Your task to perform on an android device: View the shopping cart on target. Search for rayovac triple a on target, select the first entry, add it to the cart, then select checkout. Image 0: 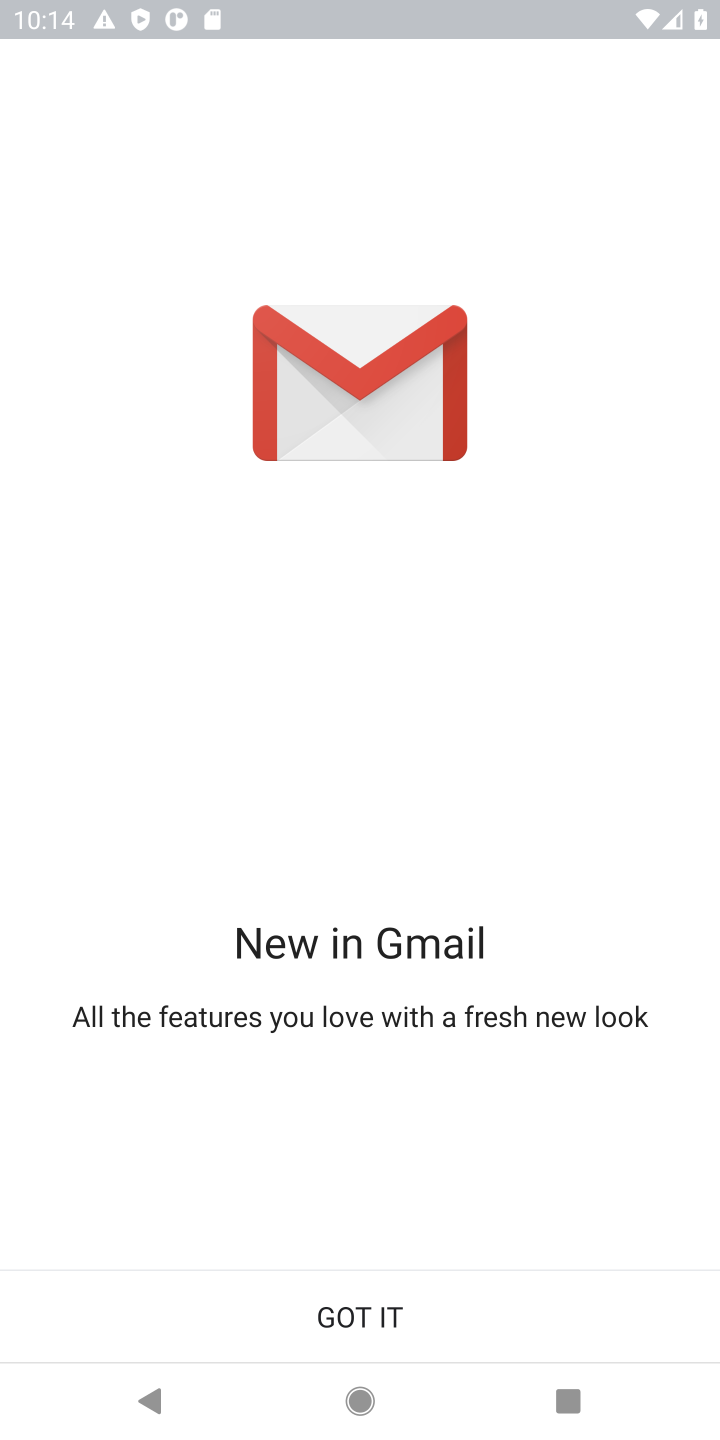
Step 0: press home button
Your task to perform on an android device: View the shopping cart on target. Search for rayovac triple a on target, select the first entry, add it to the cart, then select checkout. Image 1: 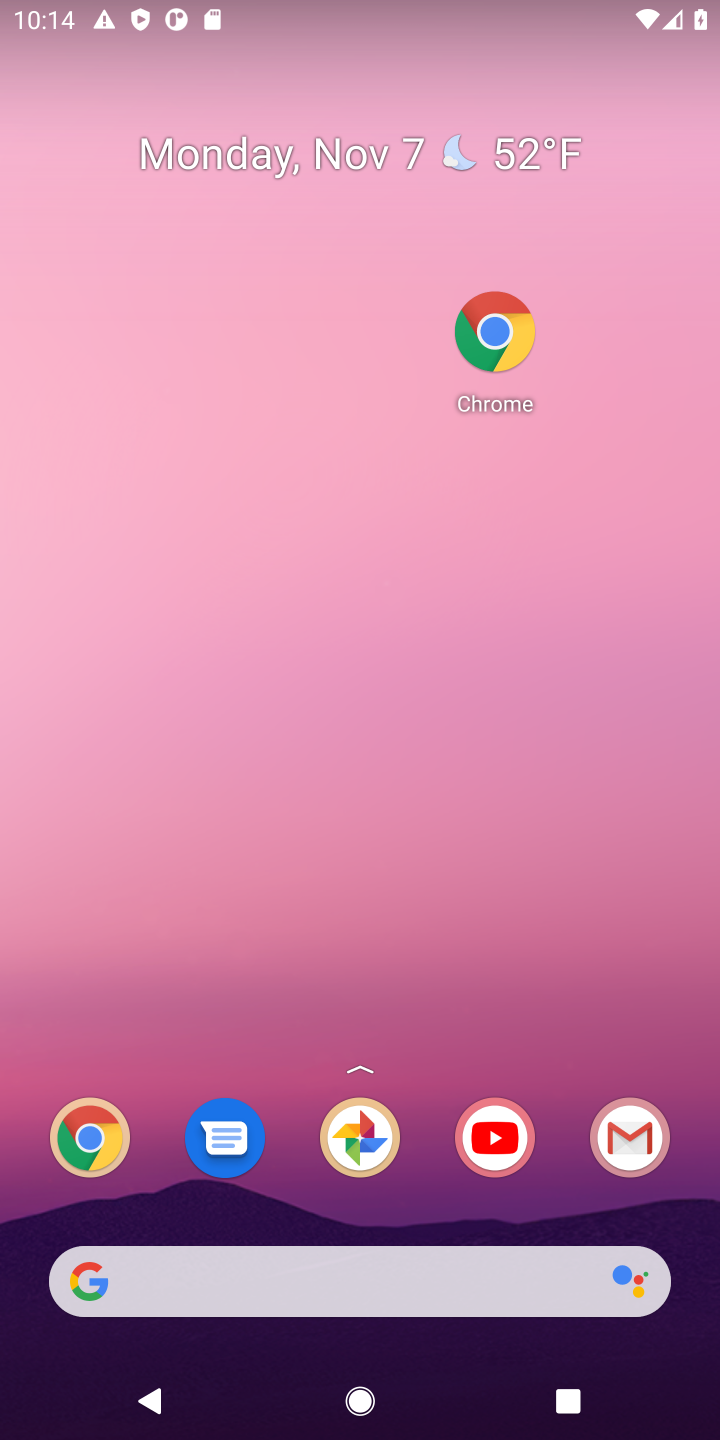
Step 1: drag from (421, 1234) to (296, 135)
Your task to perform on an android device: View the shopping cart on target. Search for rayovac triple a on target, select the first entry, add it to the cart, then select checkout. Image 2: 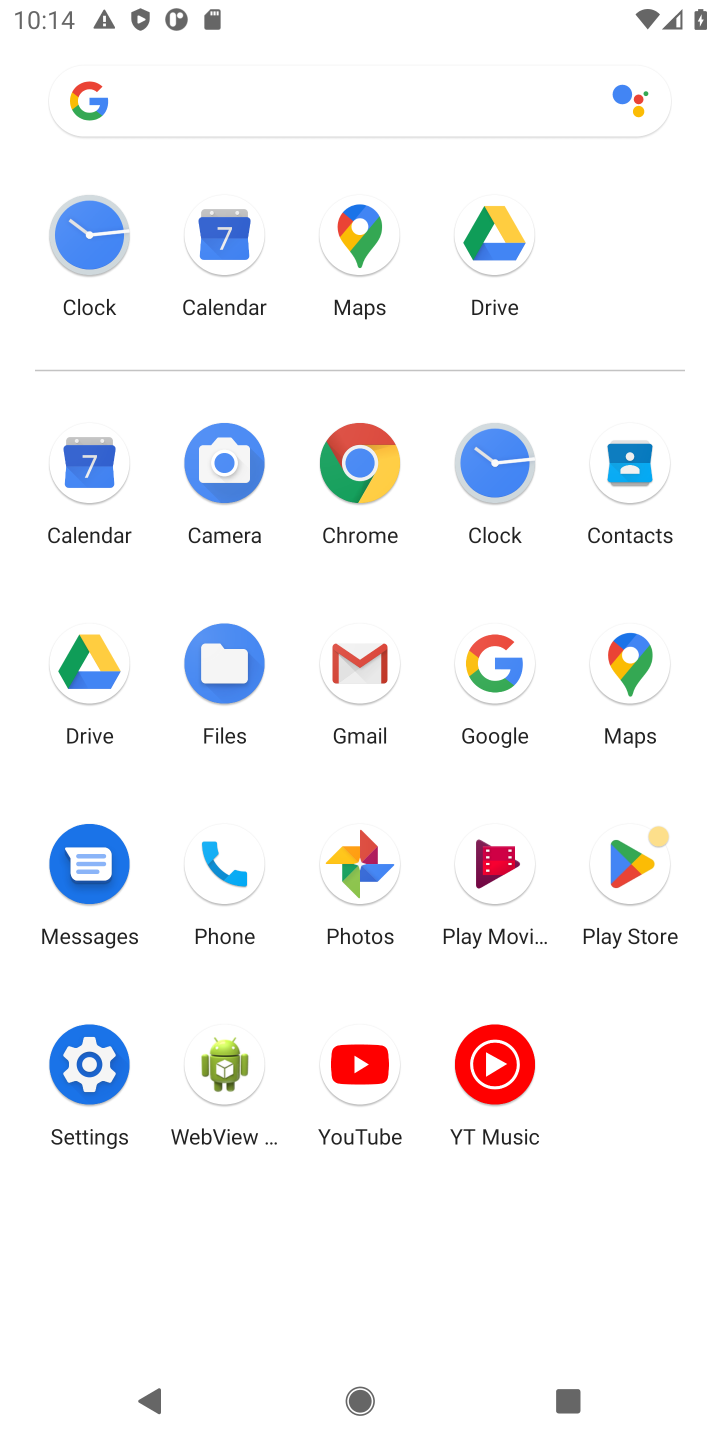
Step 2: click (359, 460)
Your task to perform on an android device: View the shopping cart on target. Search for rayovac triple a on target, select the first entry, add it to the cart, then select checkout. Image 3: 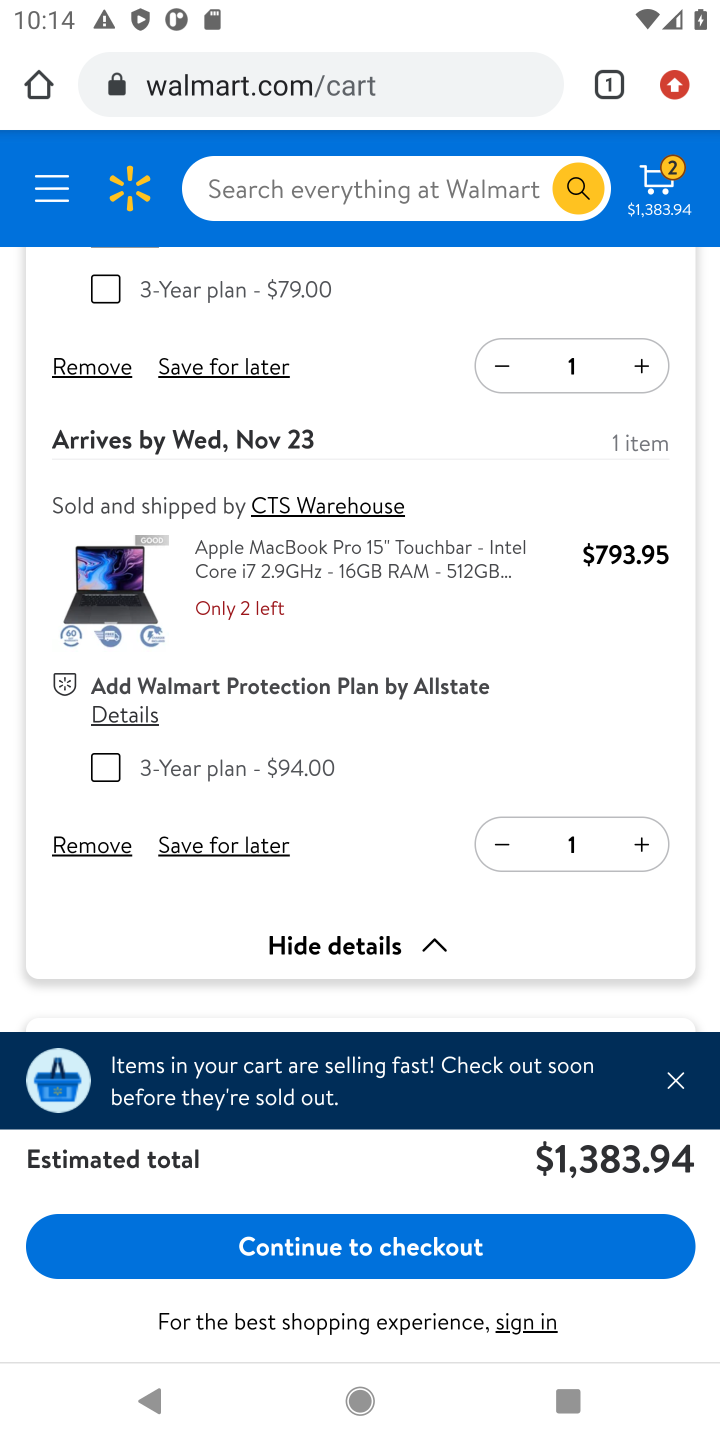
Step 3: click (390, 85)
Your task to perform on an android device: View the shopping cart on target. Search for rayovac triple a on target, select the first entry, add it to the cart, then select checkout. Image 4: 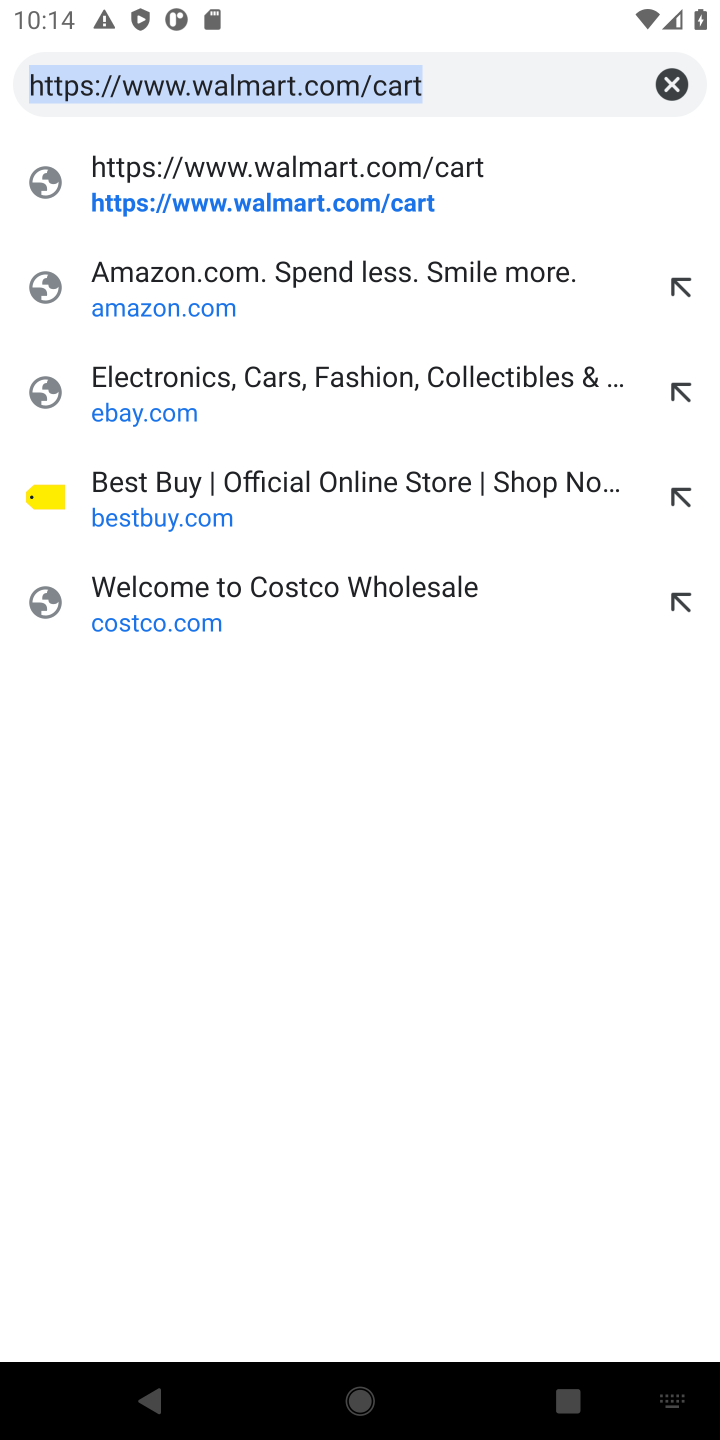
Step 4: type "target.com"
Your task to perform on an android device: View the shopping cart on target. Search for rayovac triple a on target, select the first entry, add it to the cart, then select checkout. Image 5: 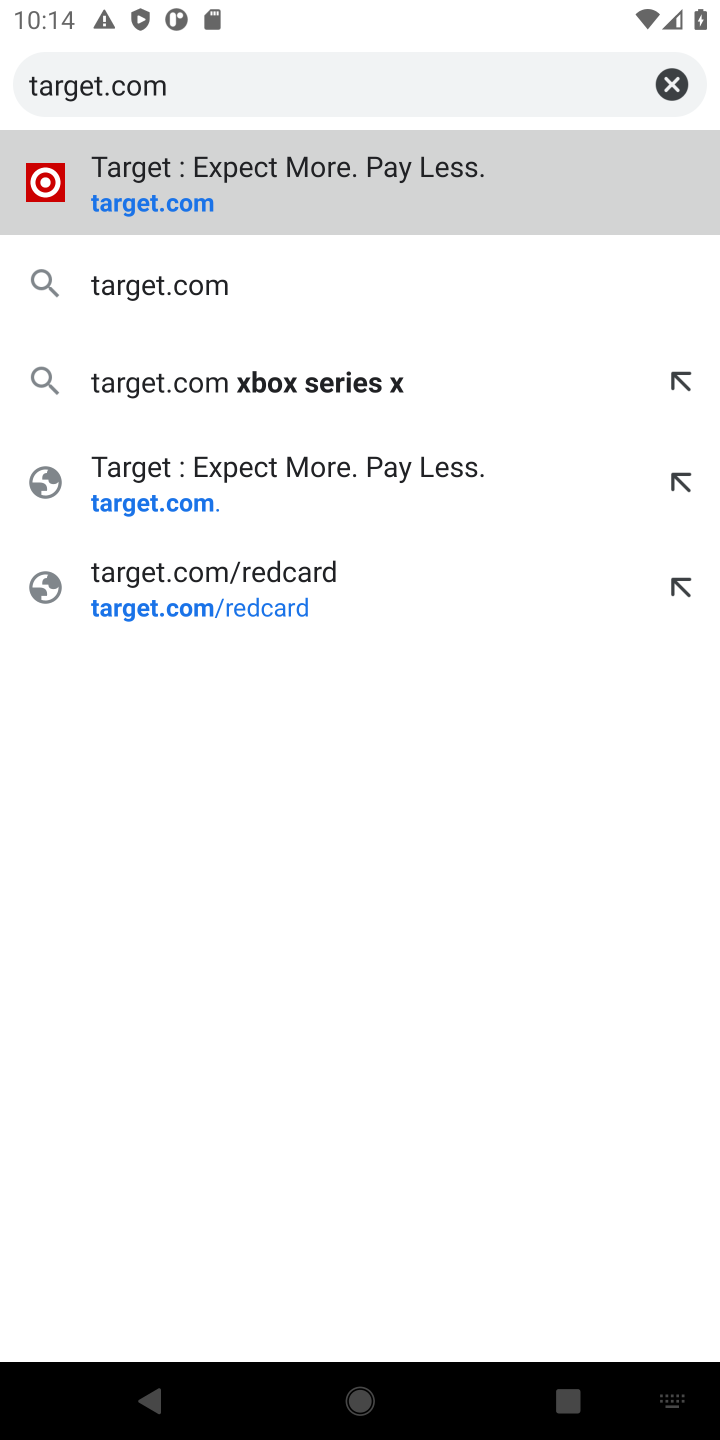
Step 5: press enter
Your task to perform on an android device: View the shopping cart on target. Search for rayovac triple a on target, select the first entry, add it to the cart, then select checkout. Image 6: 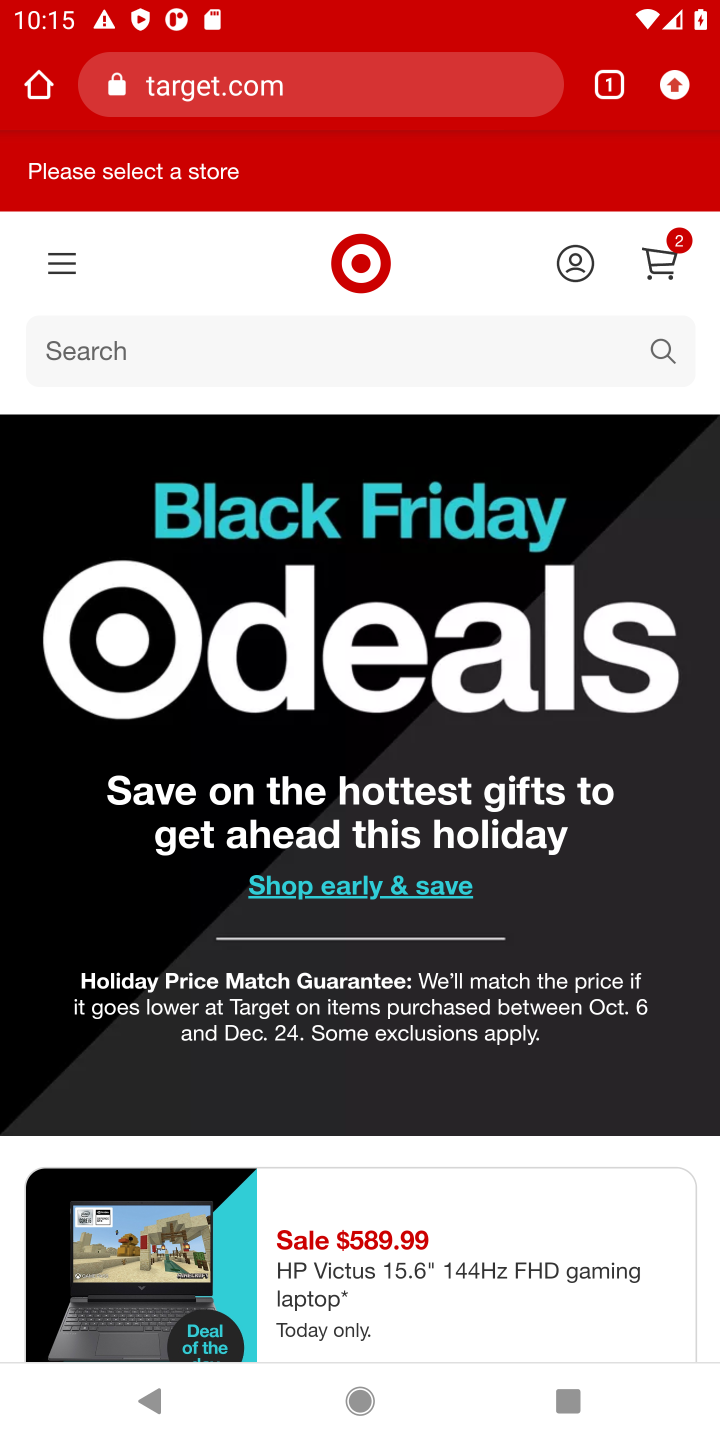
Step 6: click (659, 259)
Your task to perform on an android device: View the shopping cart on target. Search for rayovac triple a on target, select the first entry, add it to the cart, then select checkout. Image 7: 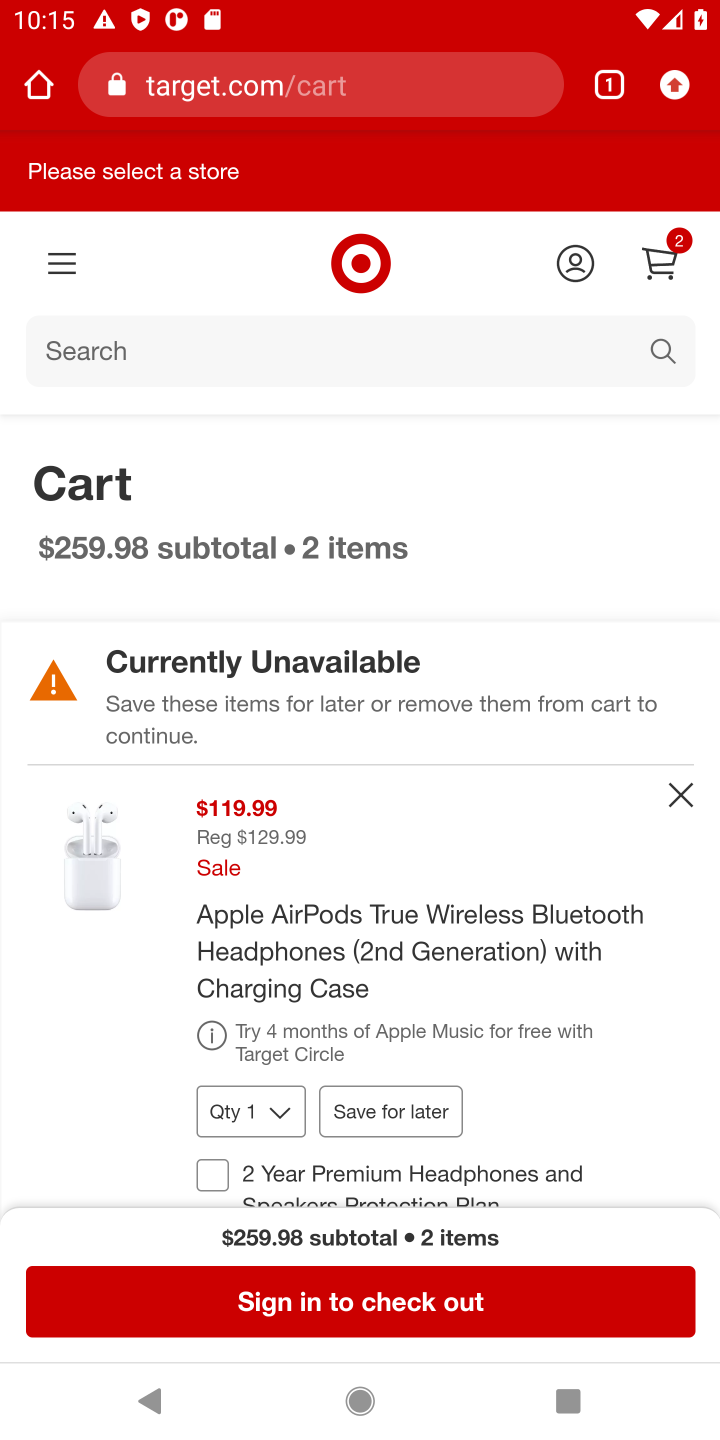
Step 7: click (382, 387)
Your task to perform on an android device: View the shopping cart on target. Search for rayovac triple a on target, select the first entry, add it to the cart, then select checkout. Image 8: 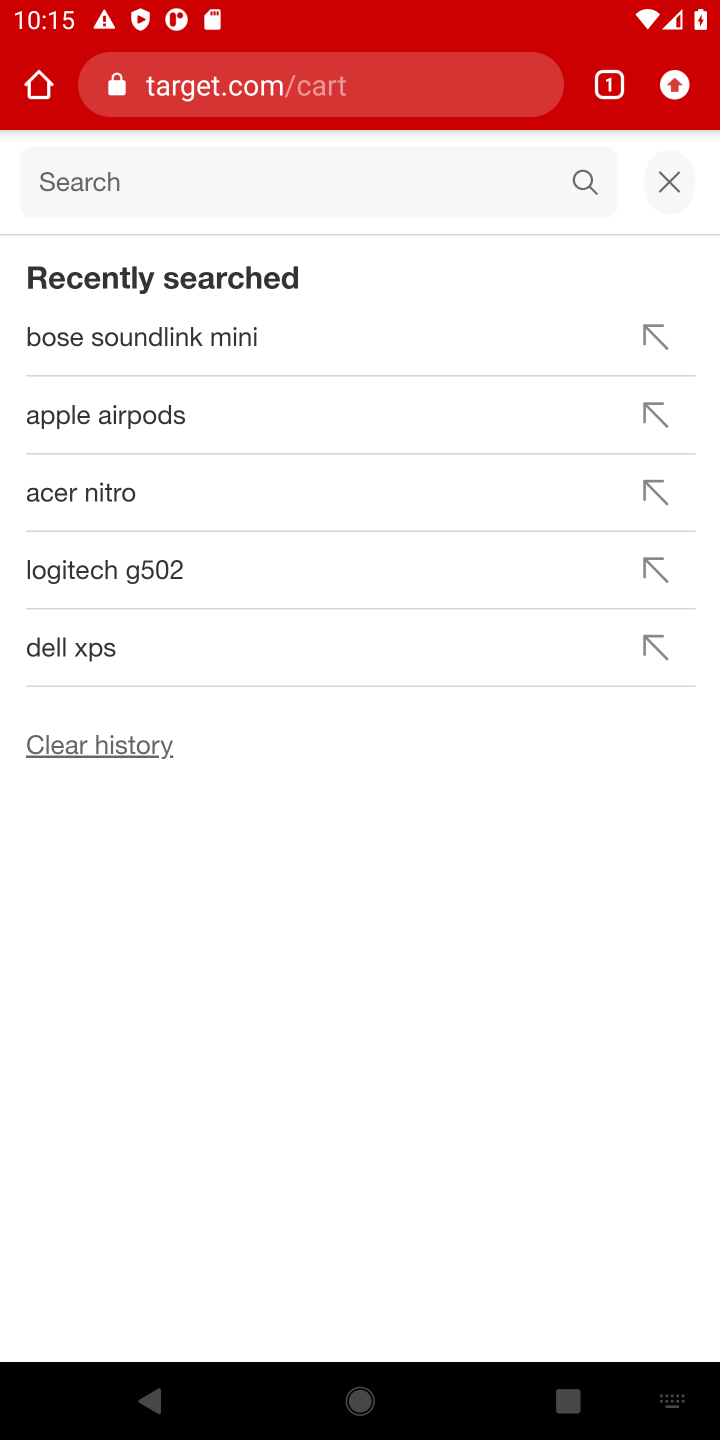
Step 8: type "rayovac triple a"
Your task to perform on an android device: View the shopping cart on target. Search for rayovac triple a on target, select the first entry, add it to the cart, then select checkout. Image 9: 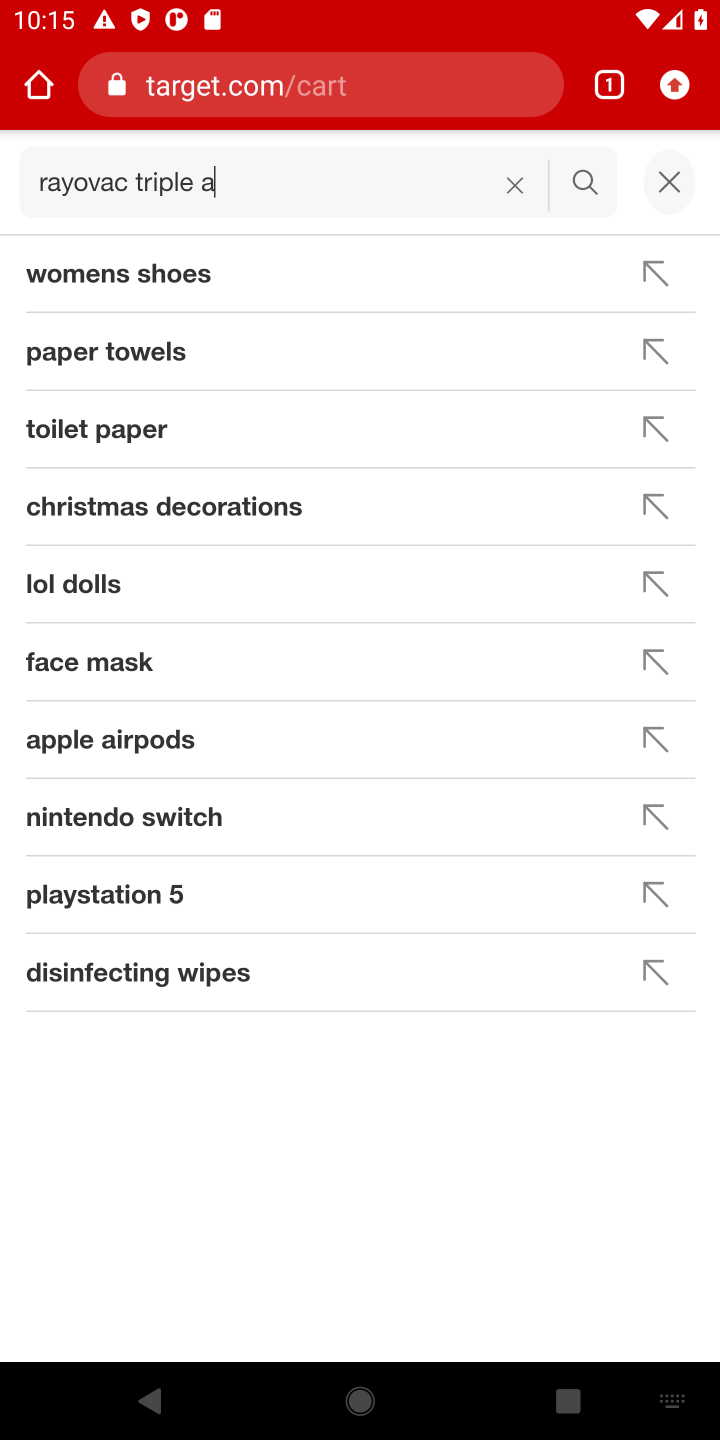
Step 9: press enter
Your task to perform on an android device: View the shopping cart on target. Search for rayovac triple a on target, select the first entry, add it to the cart, then select checkout. Image 10: 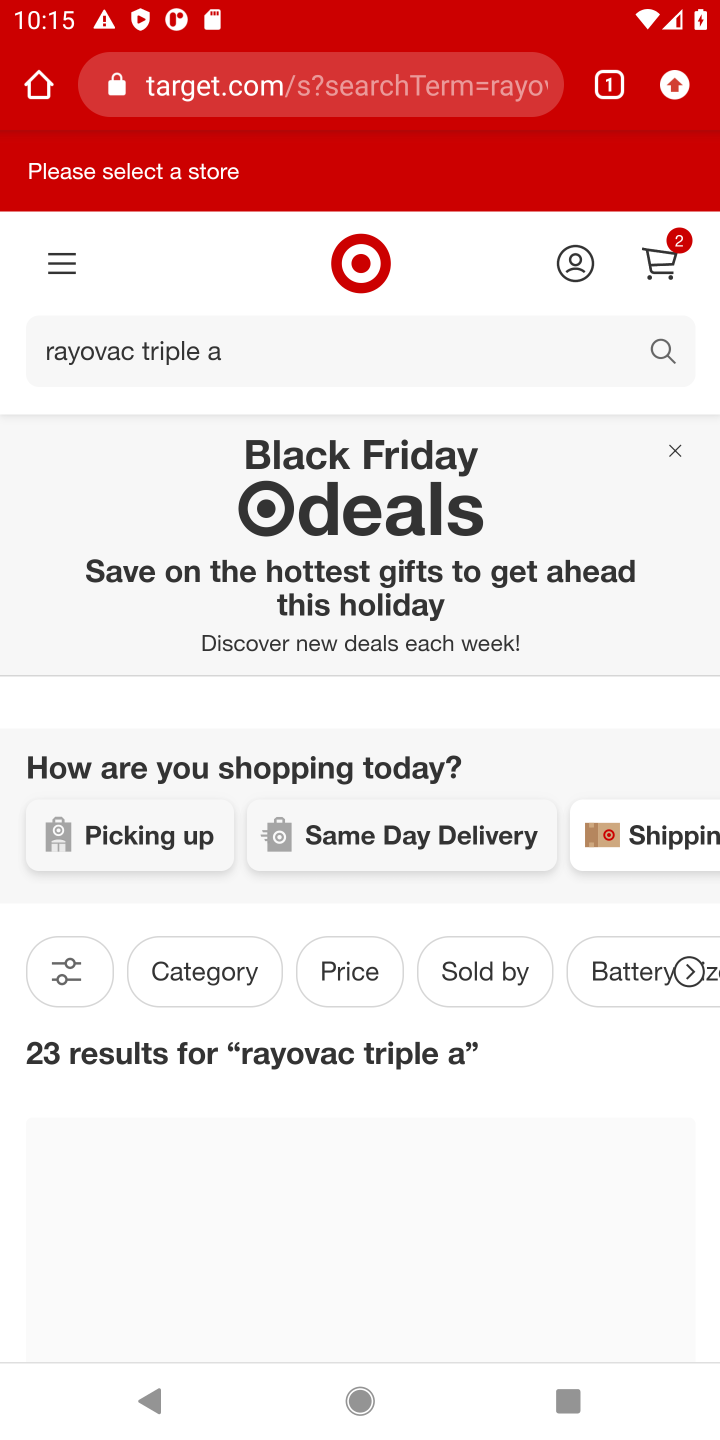
Step 10: task complete